Your task to perform on an android device: What's the weather going to be this weekend? Image 0: 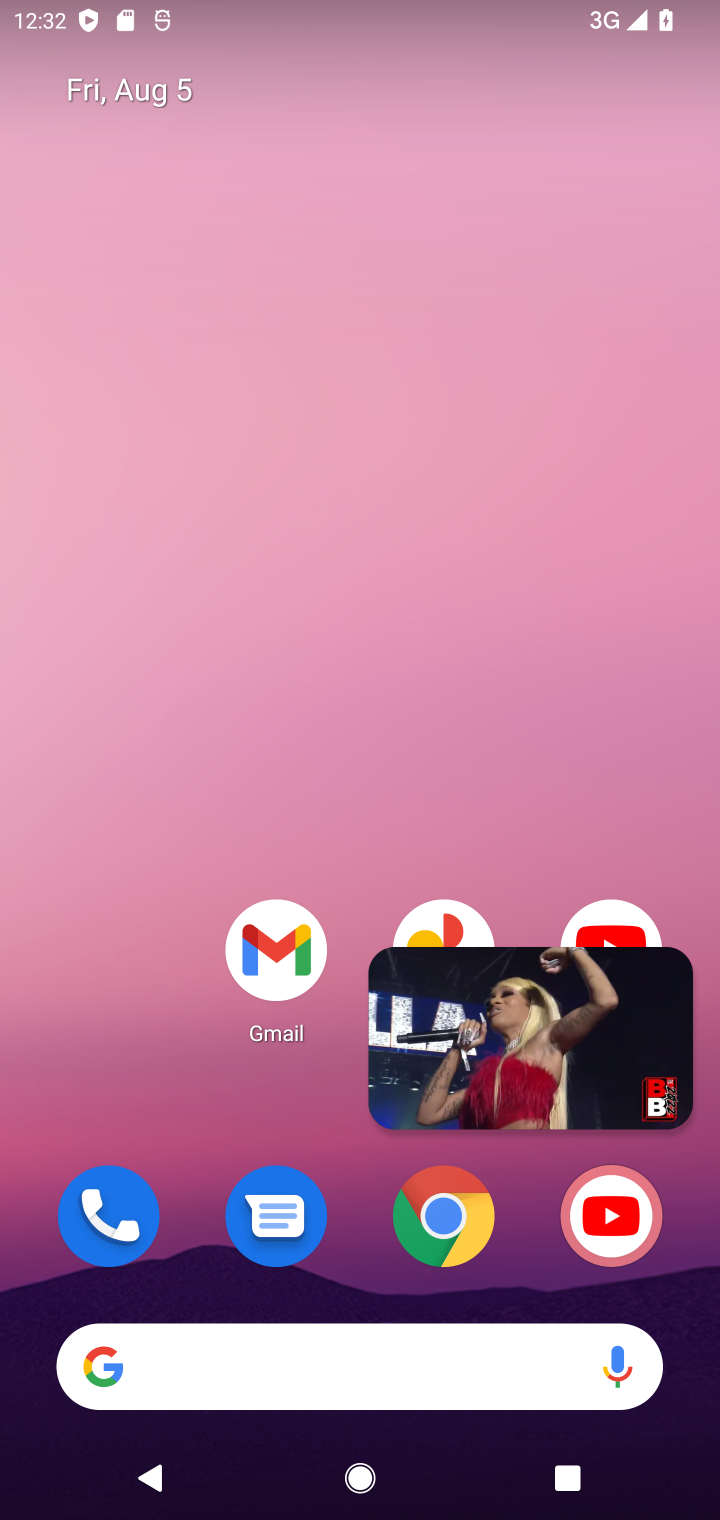
Step 0: click (663, 1011)
Your task to perform on an android device: What's the weather going to be this weekend? Image 1: 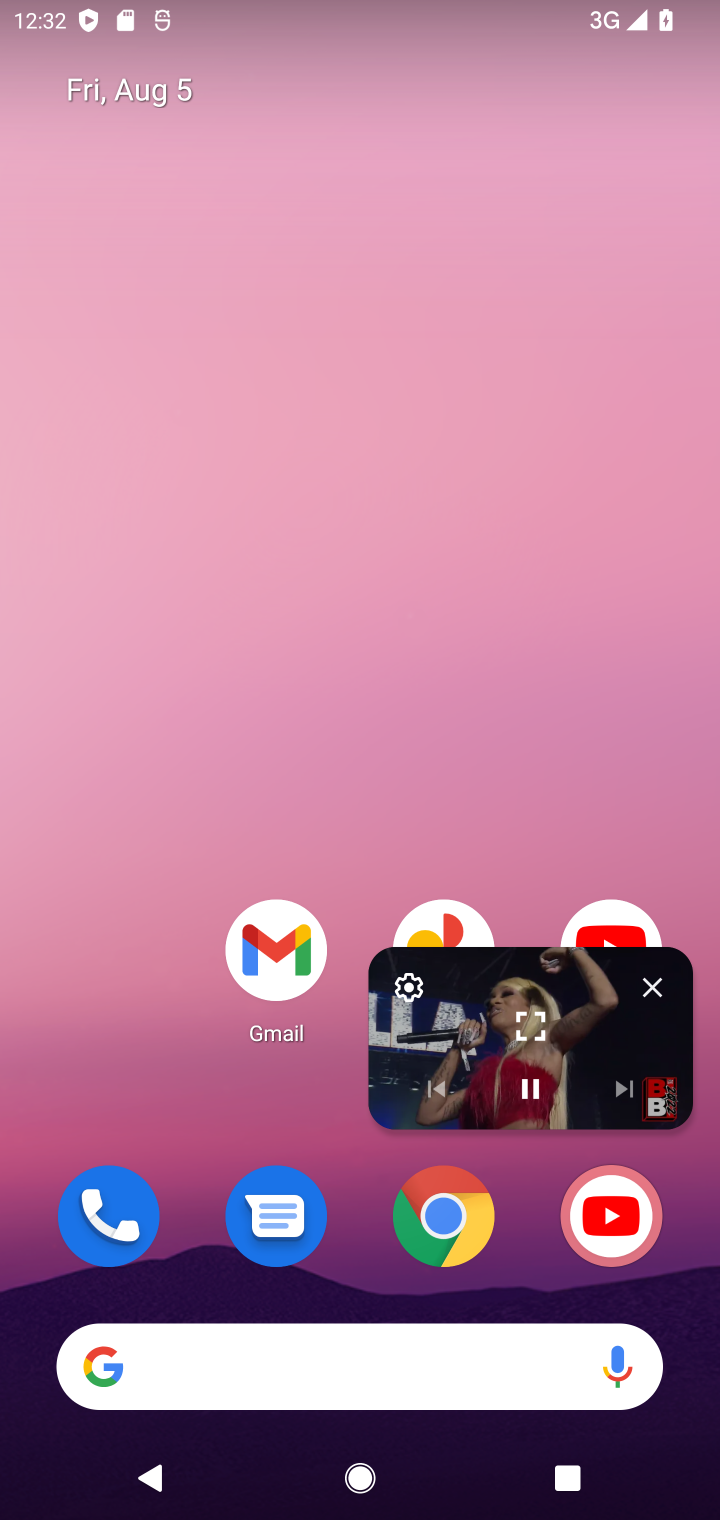
Step 1: click (646, 992)
Your task to perform on an android device: What's the weather going to be this weekend? Image 2: 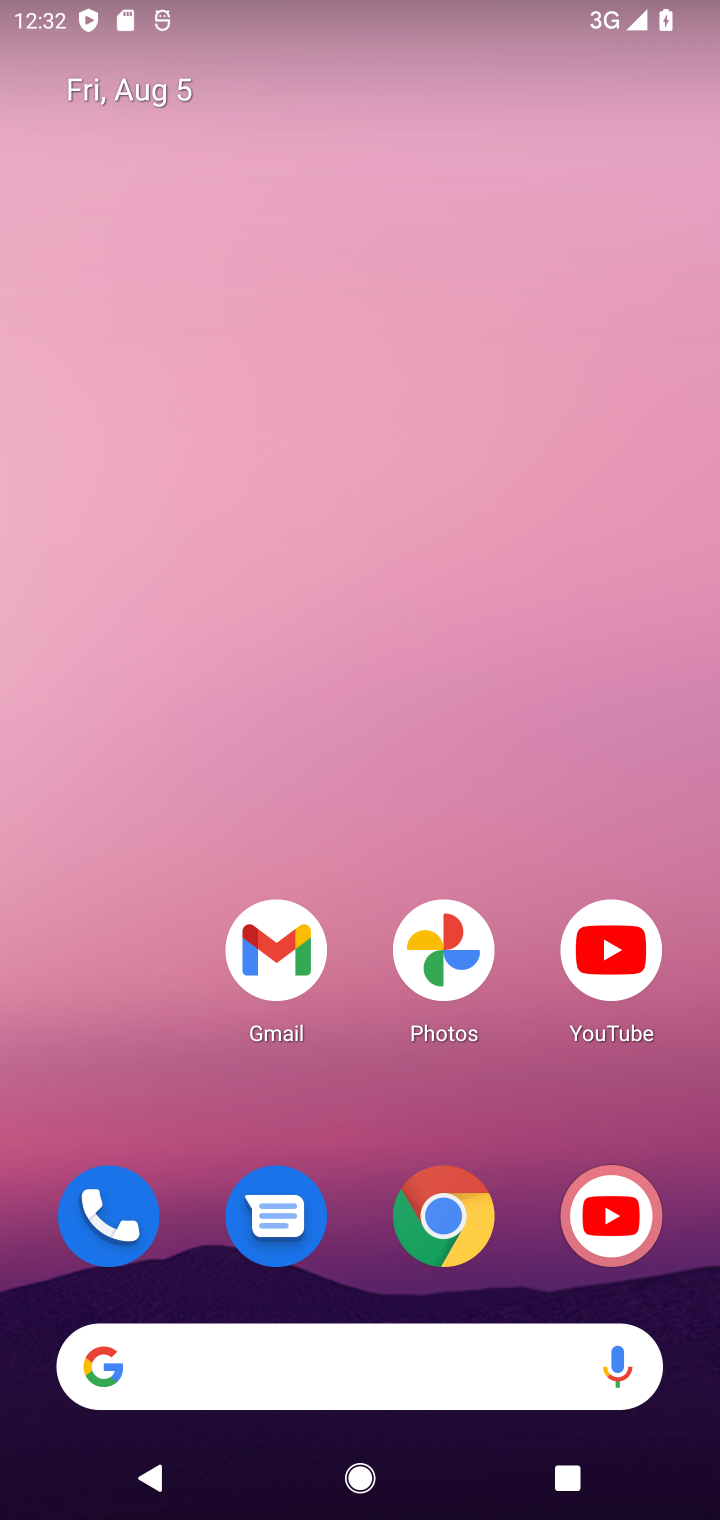
Step 2: drag from (516, 1345) to (487, 116)
Your task to perform on an android device: What's the weather going to be this weekend? Image 3: 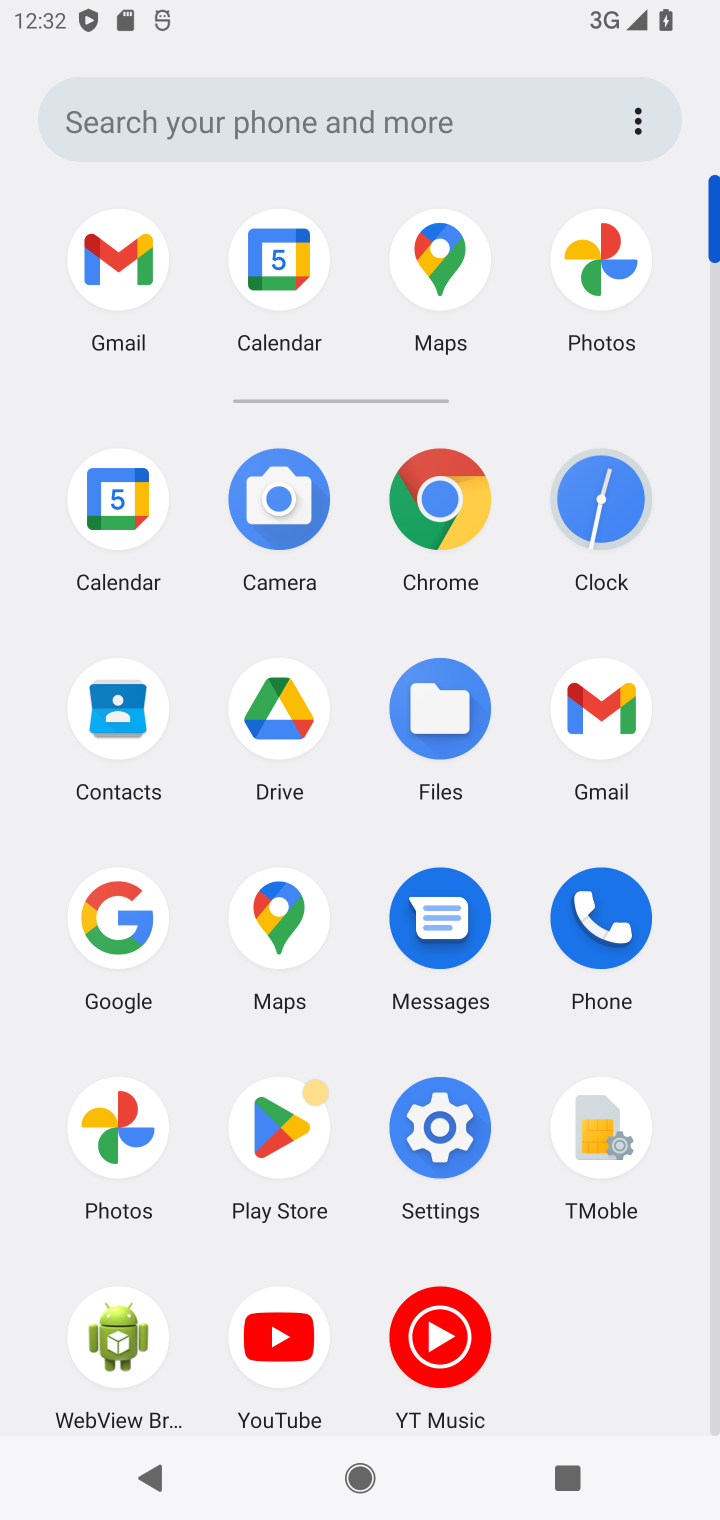
Step 3: click (452, 516)
Your task to perform on an android device: What's the weather going to be this weekend? Image 4: 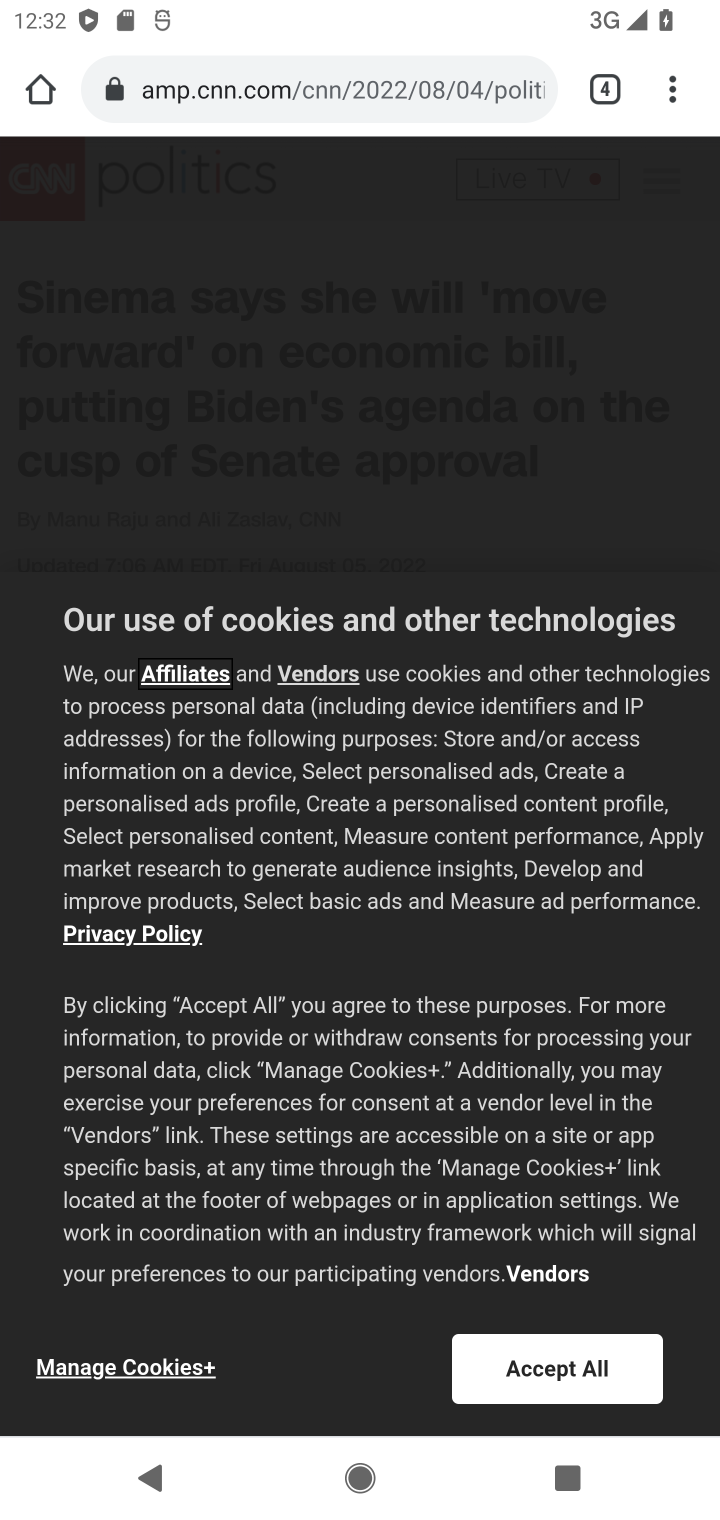
Step 4: click (421, 78)
Your task to perform on an android device: What's the weather going to be this weekend? Image 5: 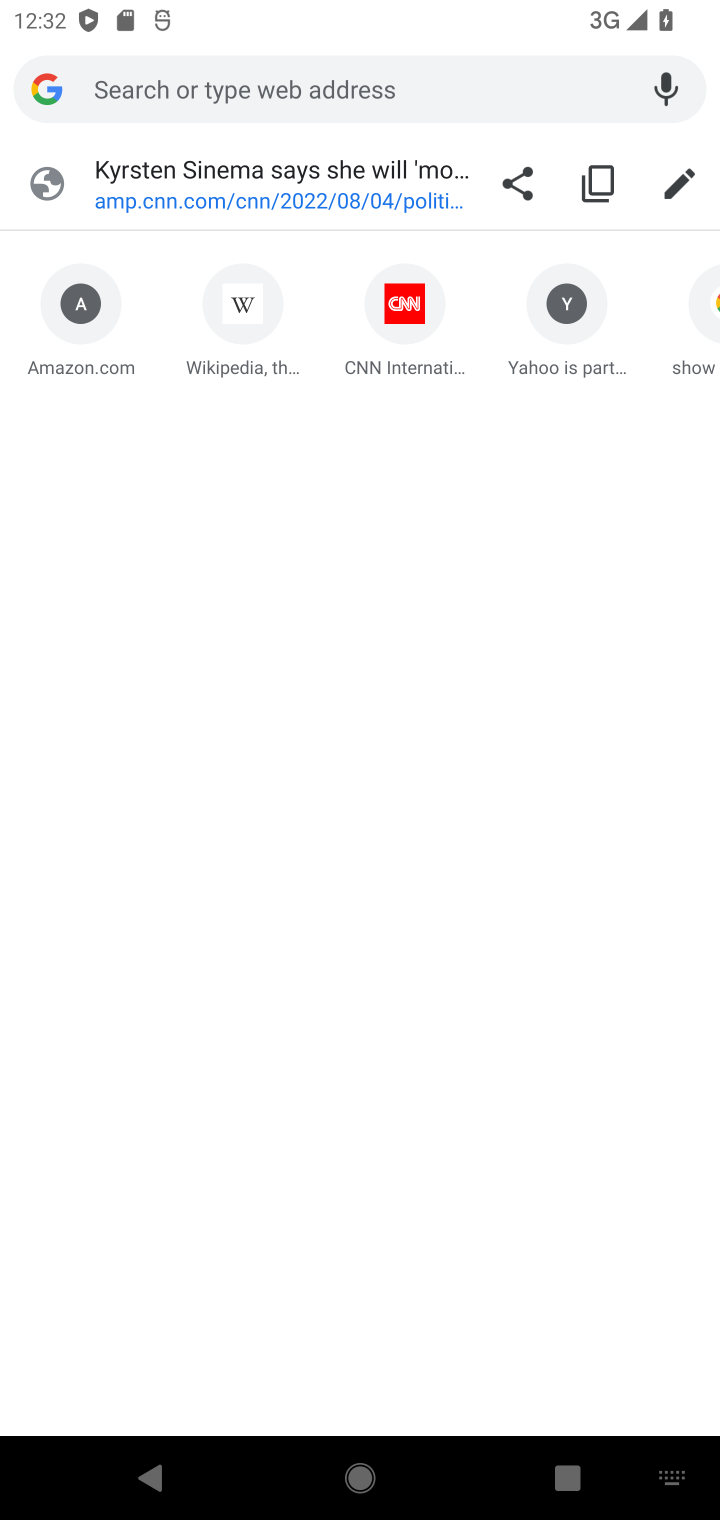
Step 5: type "weather going to be this weekend"
Your task to perform on an android device: What's the weather going to be this weekend? Image 6: 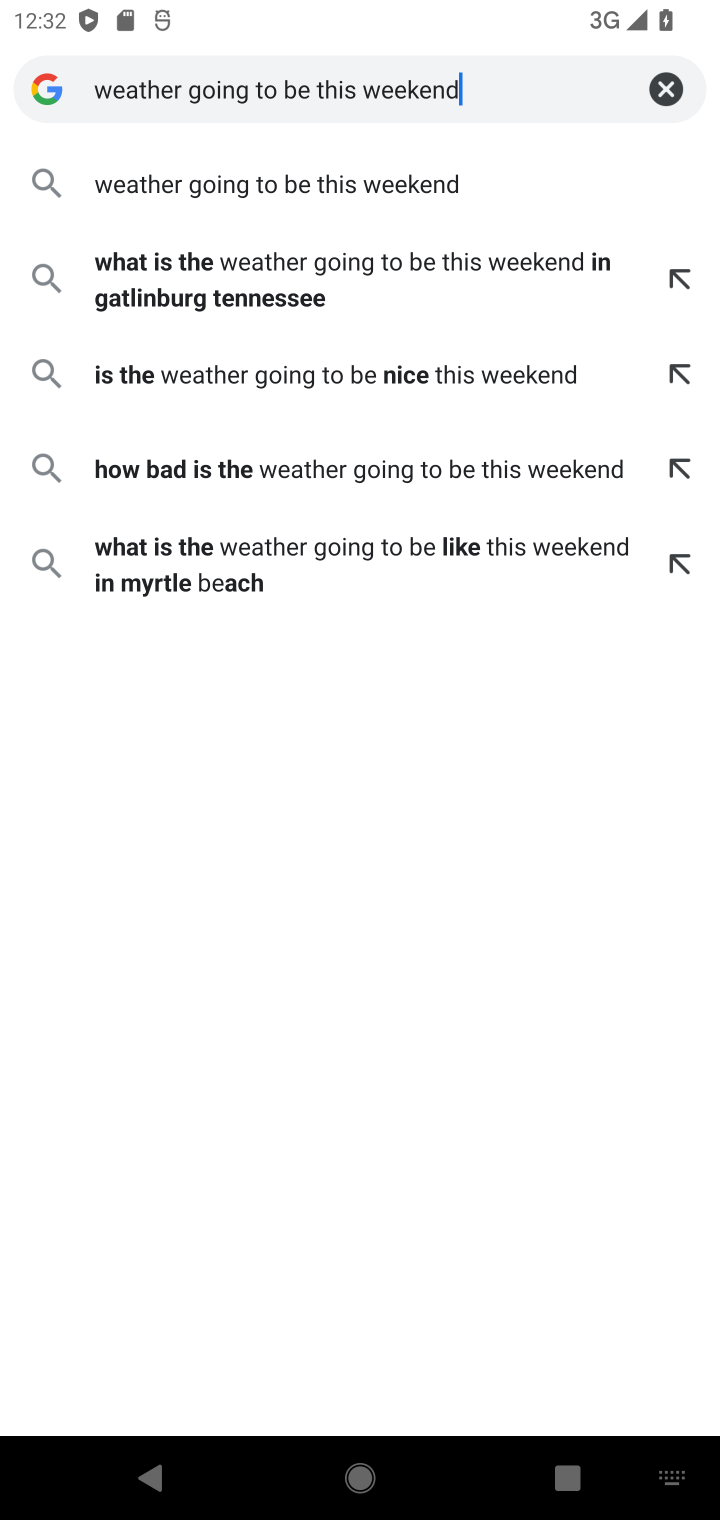
Step 6: click (340, 173)
Your task to perform on an android device: What's the weather going to be this weekend? Image 7: 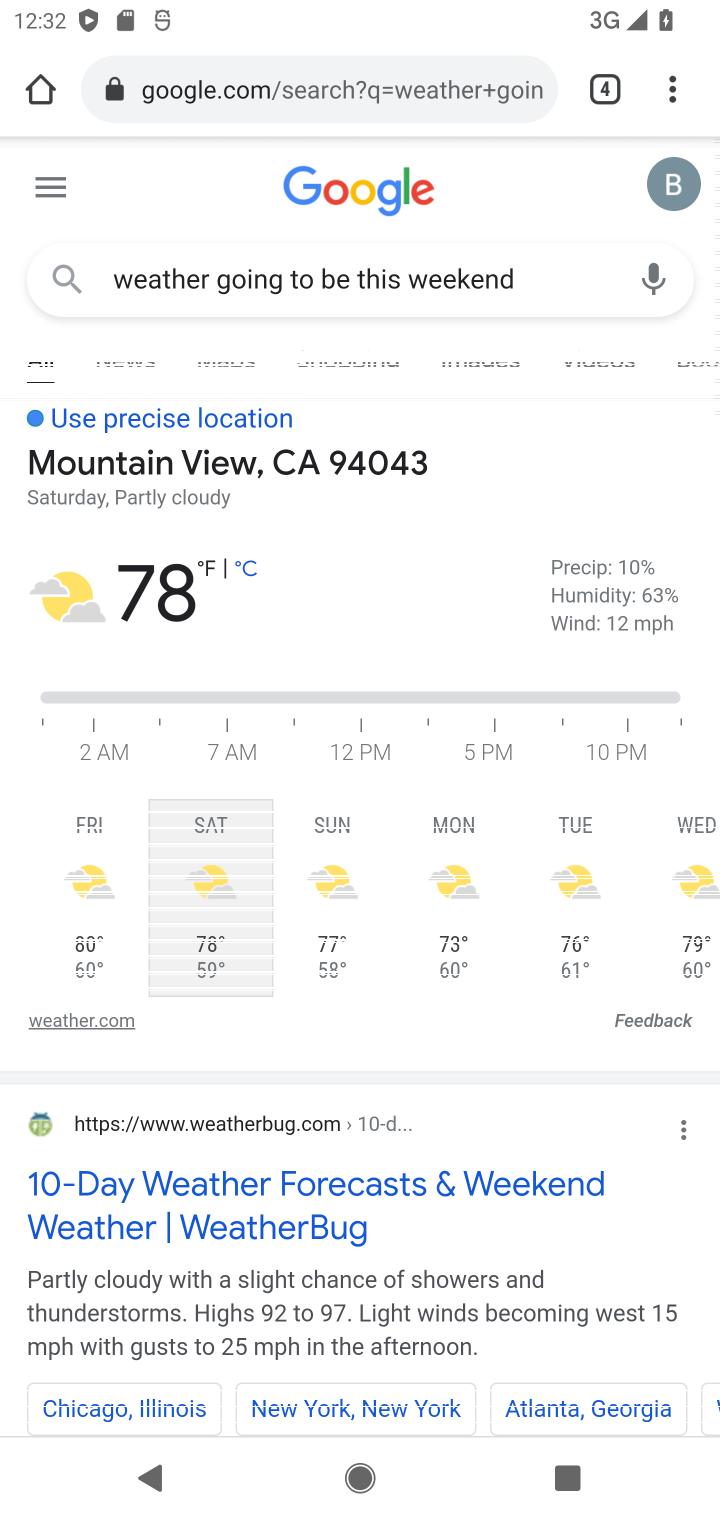
Step 7: task complete